Your task to perform on an android device: turn on bluetooth scan Image 0: 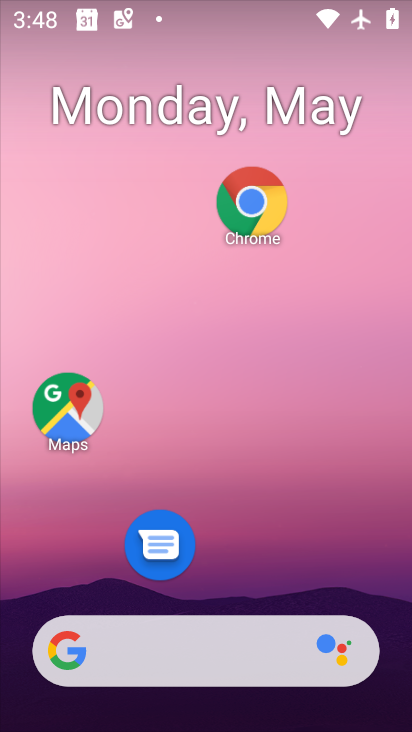
Step 0: drag from (227, 578) to (235, 116)
Your task to perform on an android device: turn on bluetooth scan Image 1: 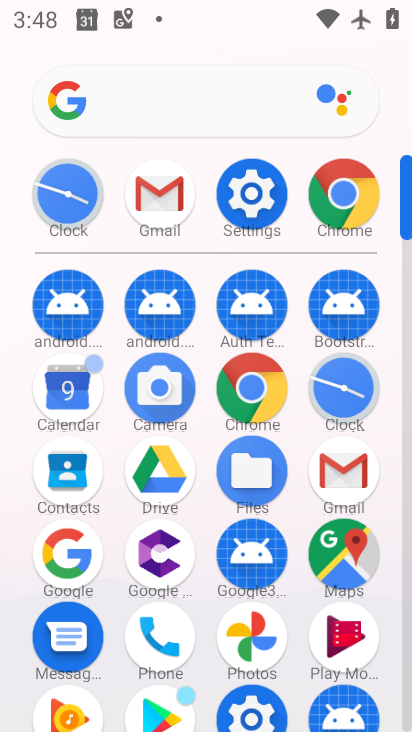
Step 1: click (242, 163)
Your task to perform on an android device: turn on bluetooth scan Image 2: 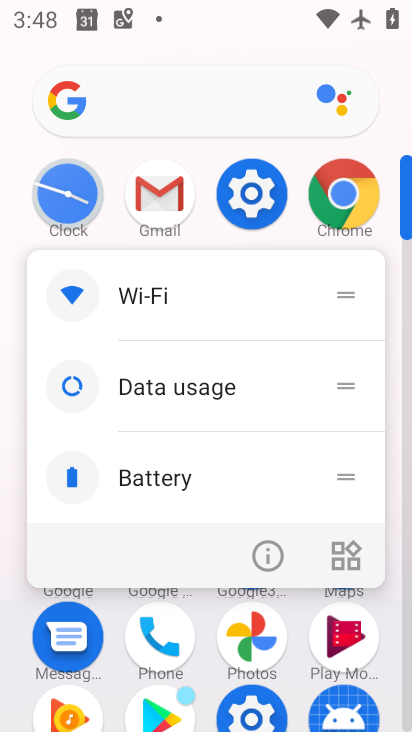
Step 2: click (242, 164)
Your task to perform on an android device: turn on bluetooth scan Image 3: 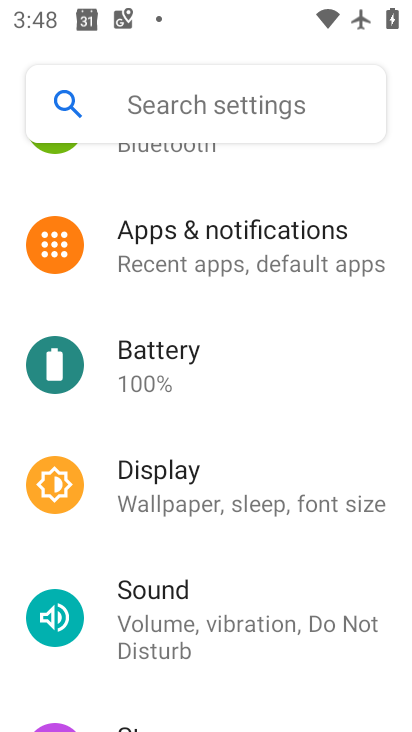
Step 3: drag from (249, 257) to (255, 527)
Your task to perform on an android device: turn on bluetooth scan Image 4: 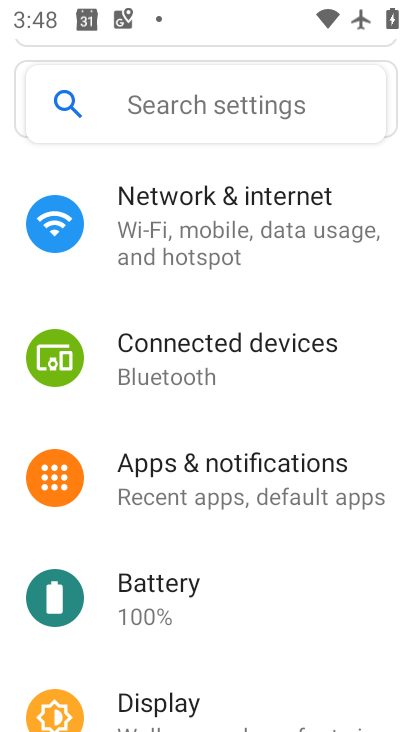
Step 4: drag from (227, 684) to (252, 257)
Your task to perform on an android device: turn on bluetooth scan Image 5: 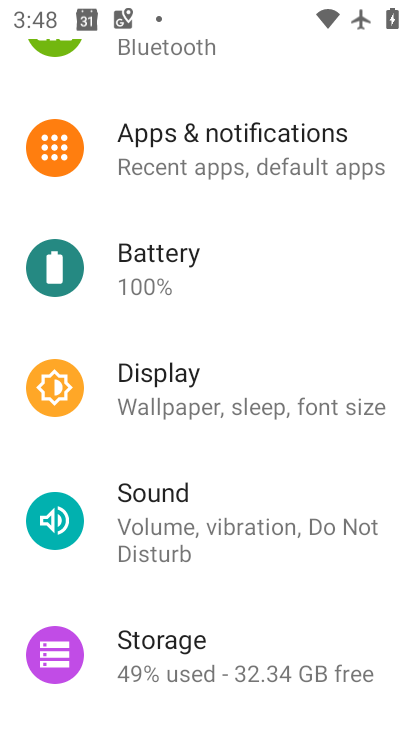
Step 5: drag from (218, 555) to (247, 191)
Your task to perform on an android device: turn on bluetooth scan Image 6: 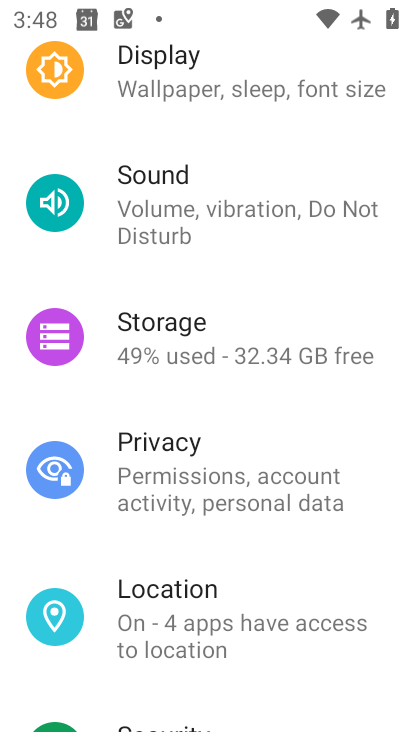
Step 6: click (213, 581)
Your task to perform on an android device: turn on bluetooth scan Image 7: 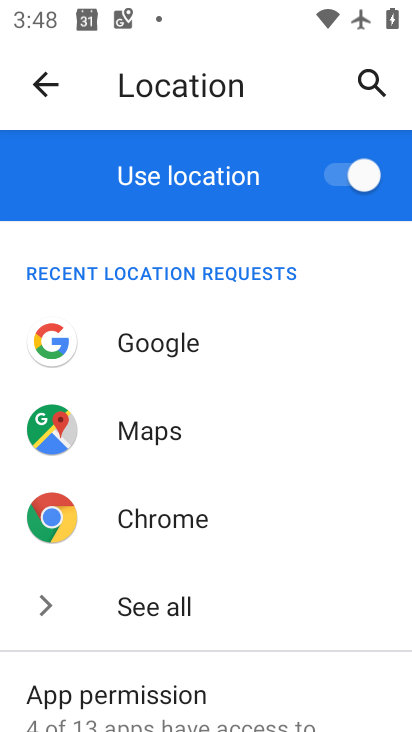
Step 7: drag from (210, 679) to (187, 363)
Your task to perform on an android device: turn on bluetooth scan Image 8: 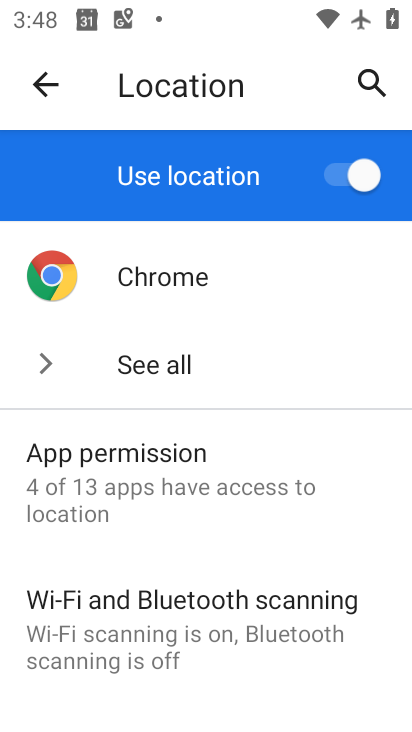
Step 8: click (221, 648)
Your task to perform on an android device: turn on bluetooth scan Image 9: 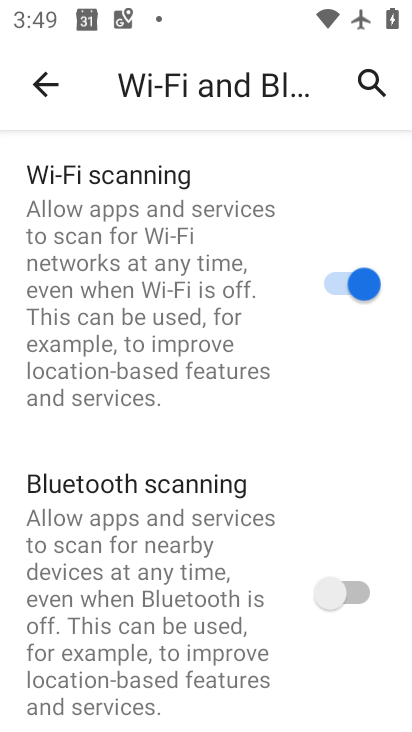
Step 9: click (346, 598)
Your task to perform on an android device: turn on bluetooth scan Image 10: 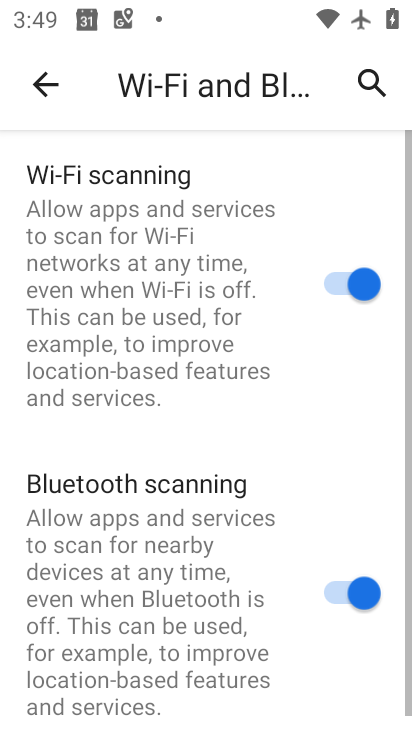
Step 10: task complete